Your task to perform on an android device: Show the shopping cart on target.com. Image 0: 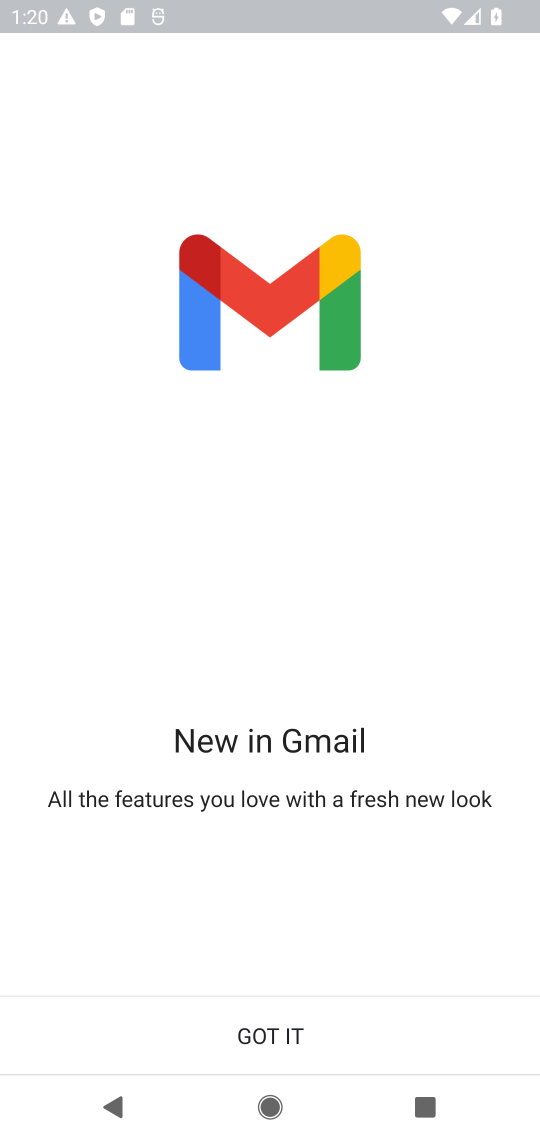
Step 0: press home button
Your task to perform on an android device: Show the shopping cart on target.com. Image 1: 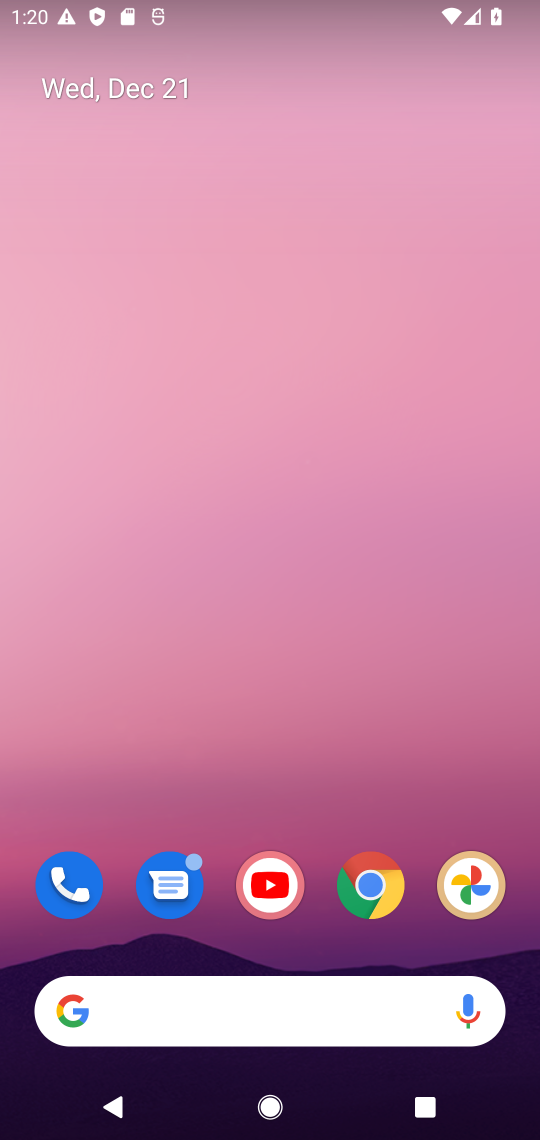
Step 1: drag from (280, 1010) to (330, 582)
Your task to perform on an android device: Show the shopping cart on target.com. Image 2: 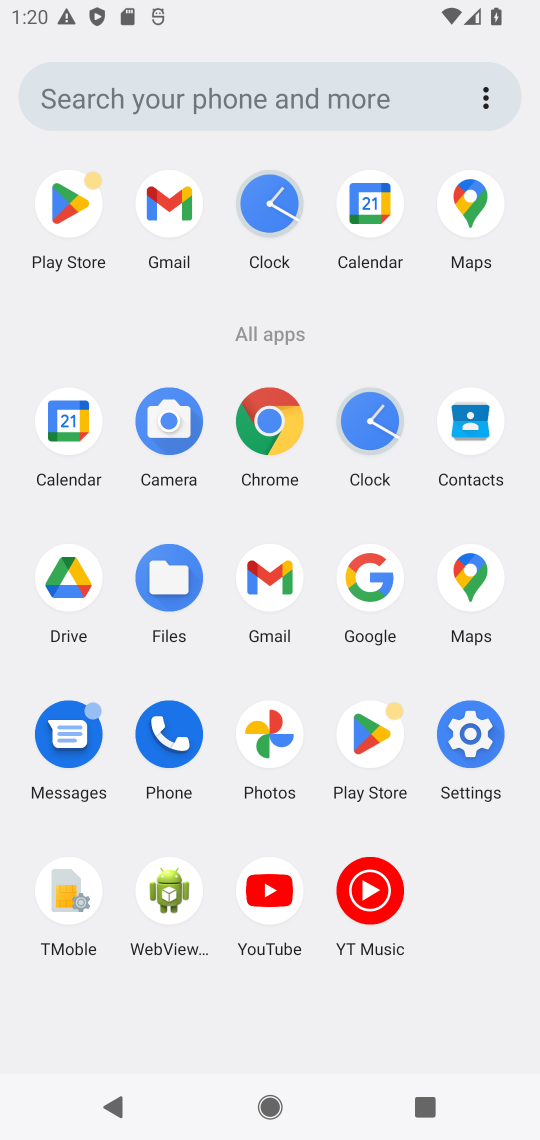
Step 2: click (365, 574)
Your task to perform on an android device: Show the shopping cart on target.com. Image 3: 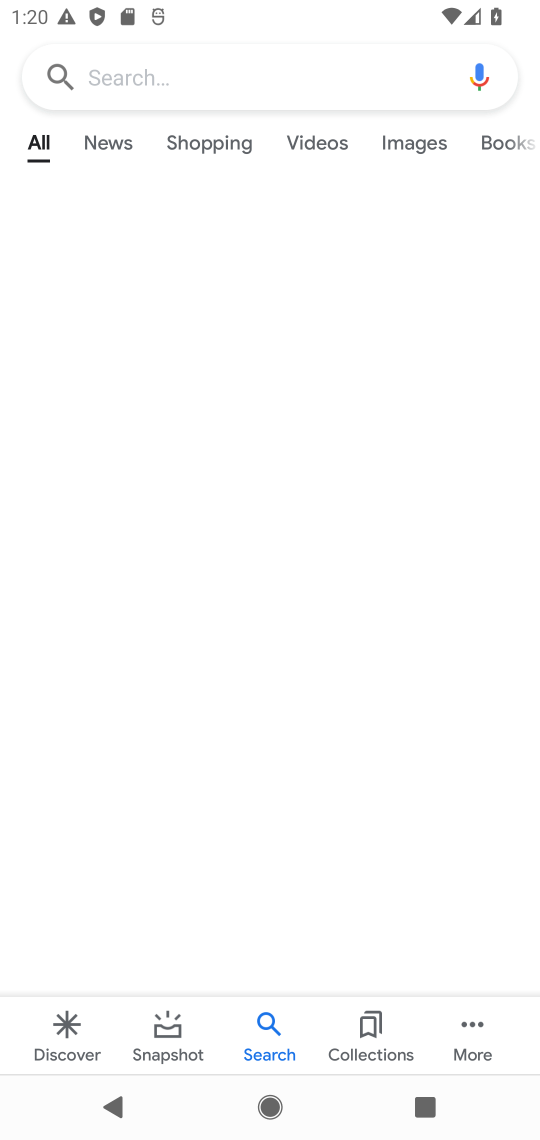
Step 3: click (141, 77)
Your task to perform on an android device: Show the shopping cart on target.com. Image 4: 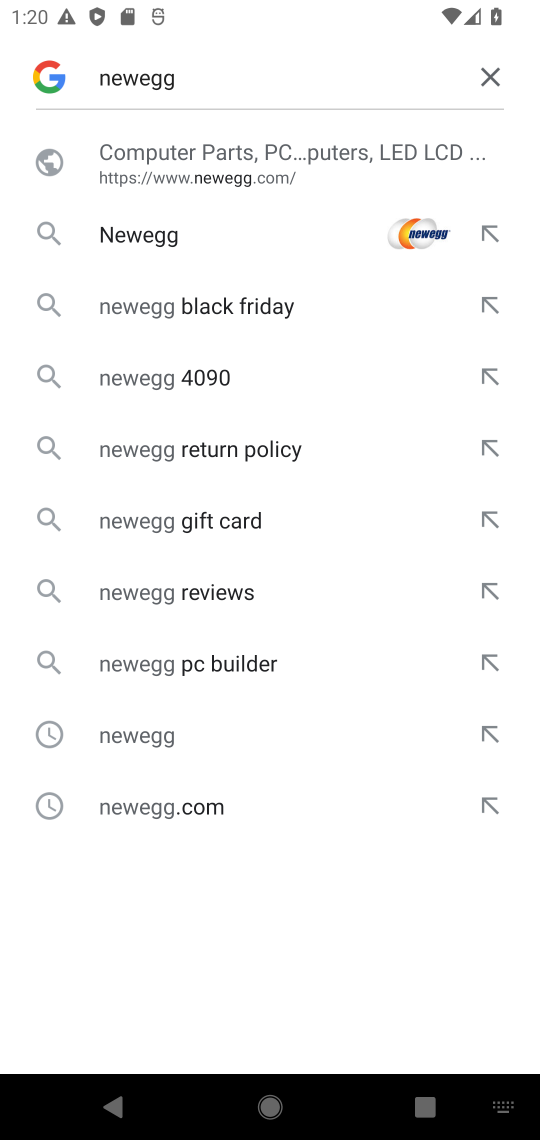
Step 4: click (491, 78)
Your task to perform on an android device: Show the shopping cart on target.com. Image 5: 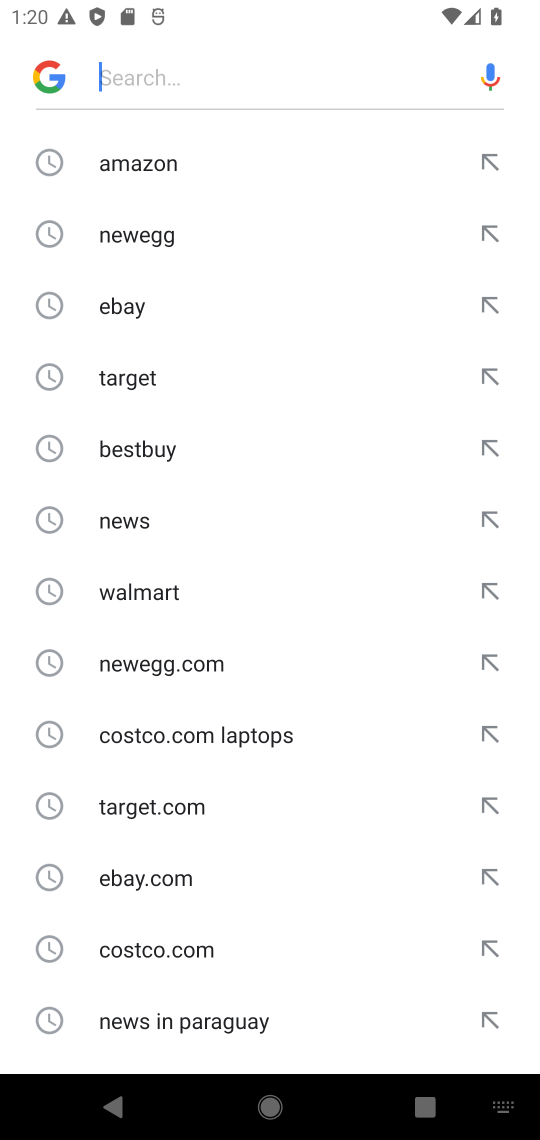
Step 5: click (123, 376)
Your task to perform on an android device: Show the shopping cart on target.com. Image 6: 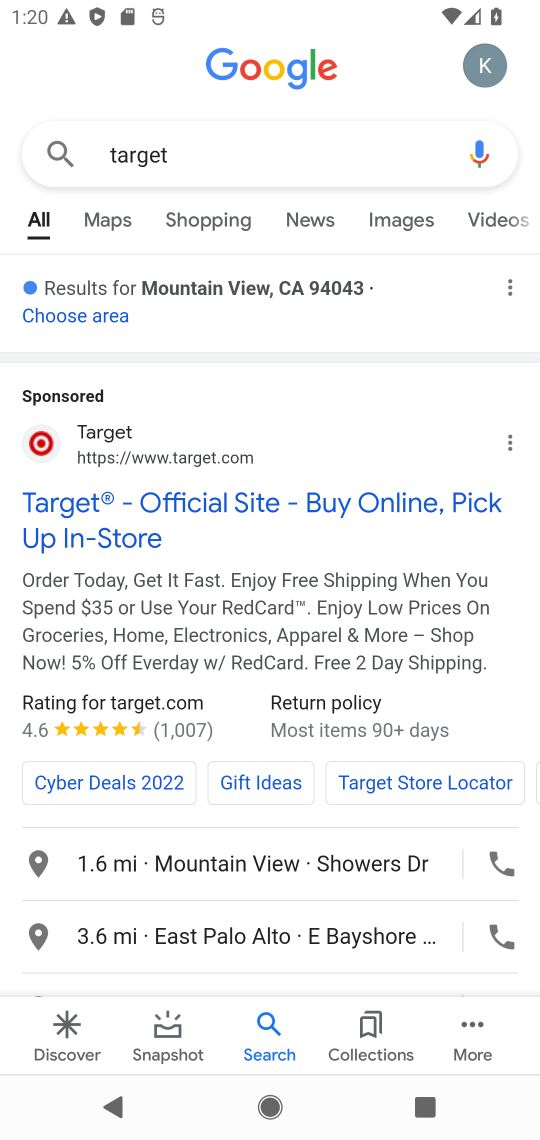
Step 6: click (122, 529)
Your task to perform on an android device: Show the shopping cart on target.com. Image 7: 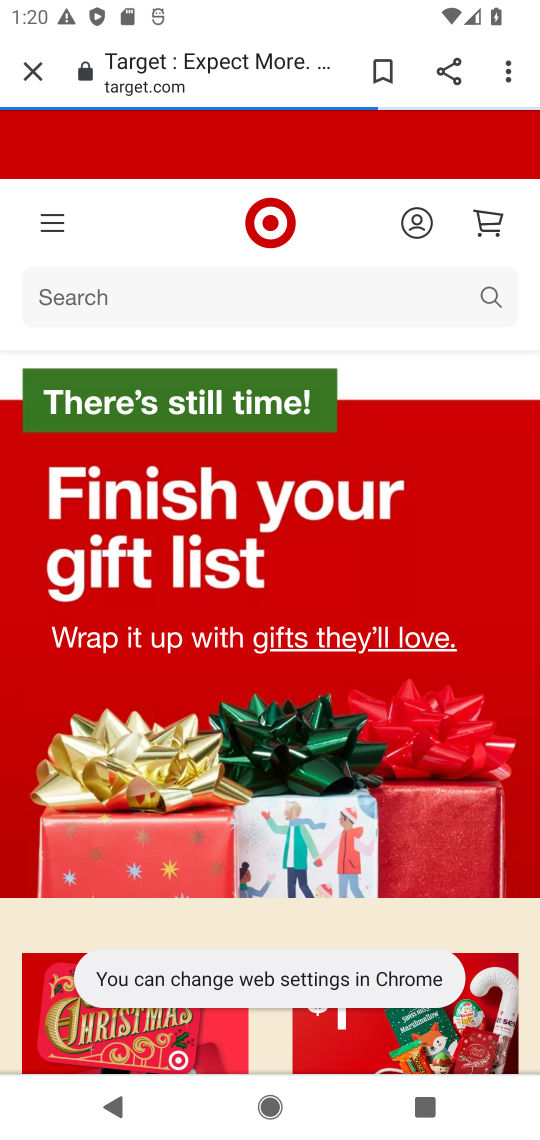
Step 7: click (206, 511)
Your task to perform on an android device: Show the shopping cart on target.com. Image 8: 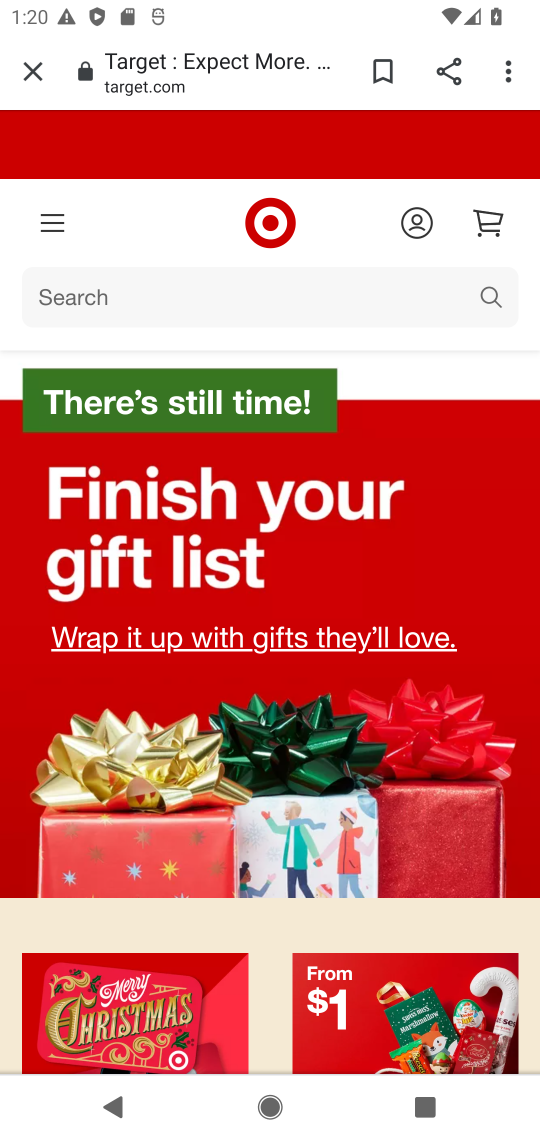
Step 8: click (122, 290)
Your task to perform on an android device: Show the shopping cart on target.com. Image 9: 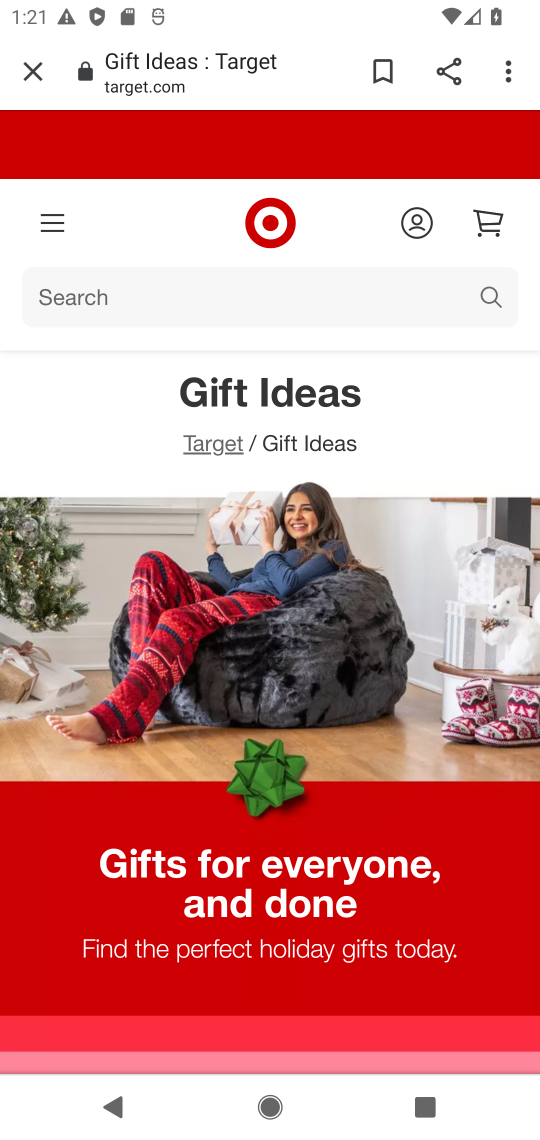
Step 9: click (93, 303)
Your task to perform on an android device: Show the shopping cart on target.com. Image 10: 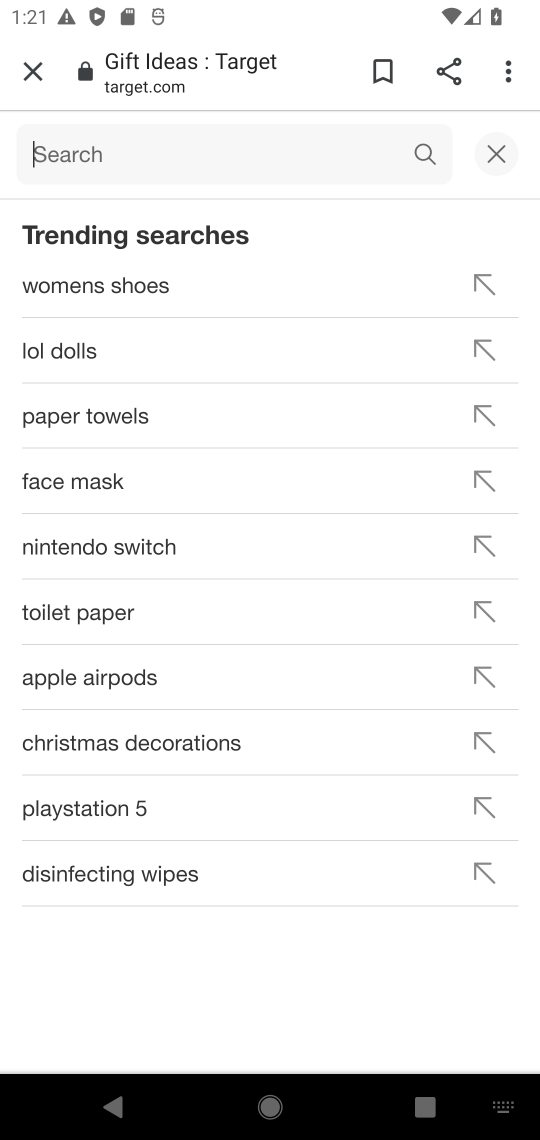
Step 10: click (501, 156)
Your task to perform on an android device: Show the shopping cart on target.com. Image 11: 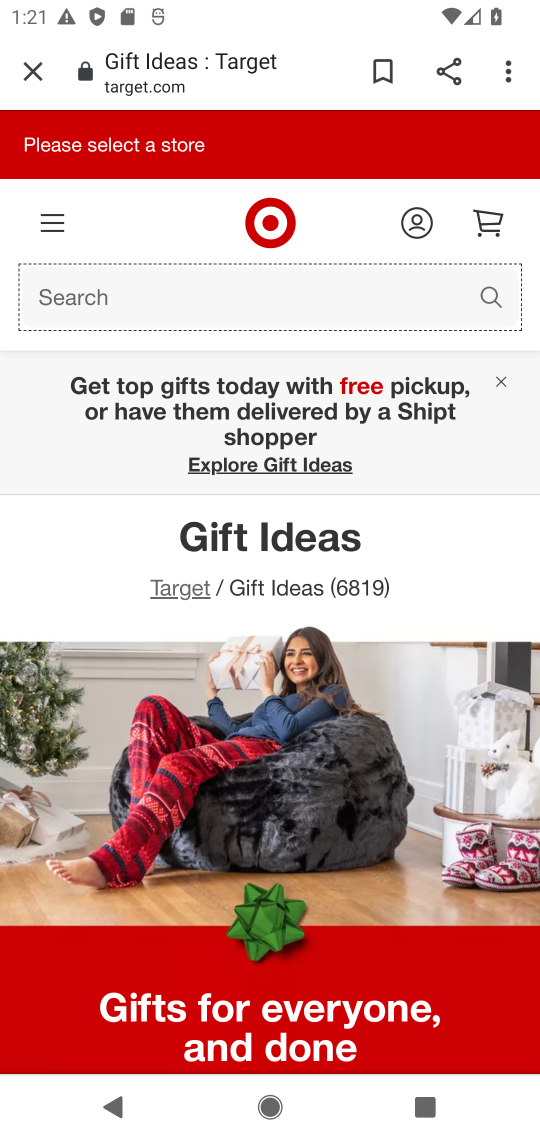
Step 11: click (486, 224)
Your task to perform on an android device: Show the shopping cart on target.com. Image 12: 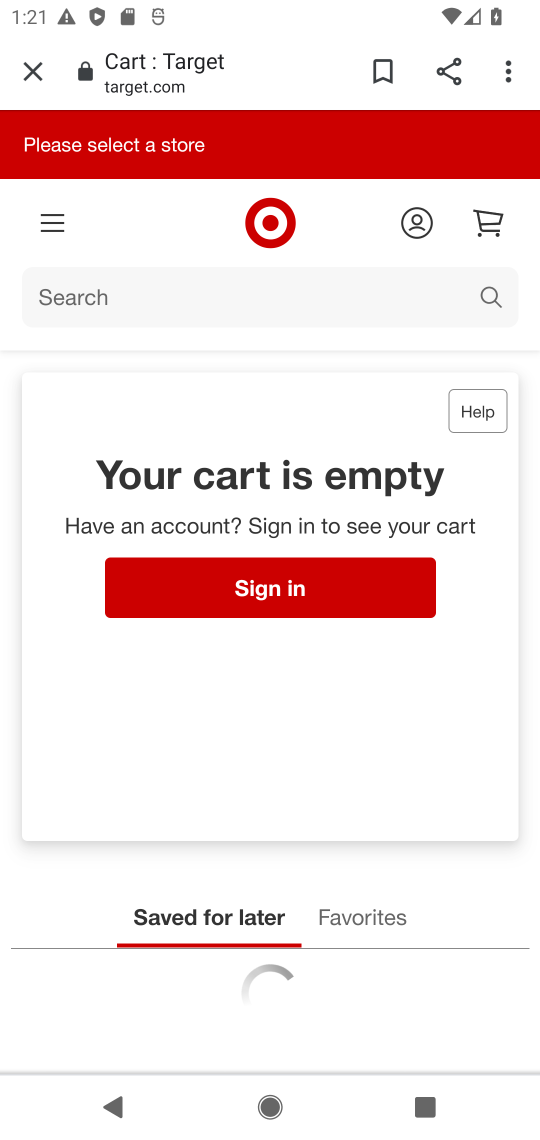
Step 12: task complete